Your task to perform on an android device: check the backup settings in the google photos Image 0: 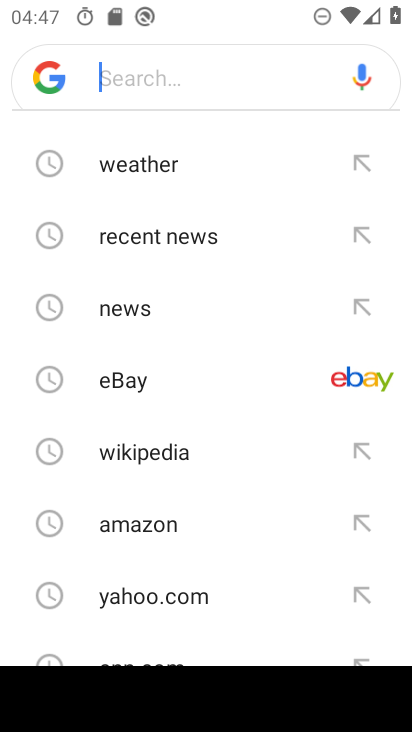
Step 0: press home button
Your task to perform on an android device: check the backup settings in the google photos Image 1: 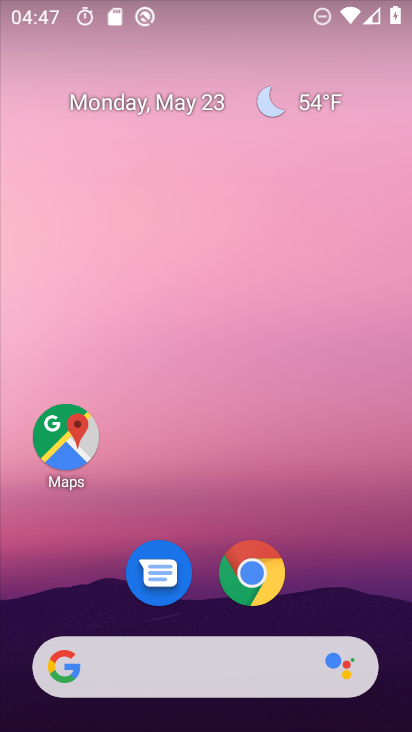
Step 1: drag from (316, 591) to (299, 46)
Your task to perform on an android device: check the backup settings in the google photos Image 2: 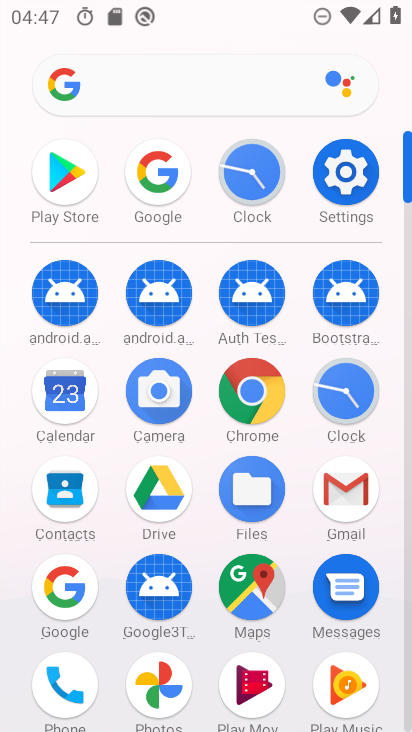
Step 2: click (159, 679)
Your task to perform on an android device: check the backup settings in the google photos Image 3: 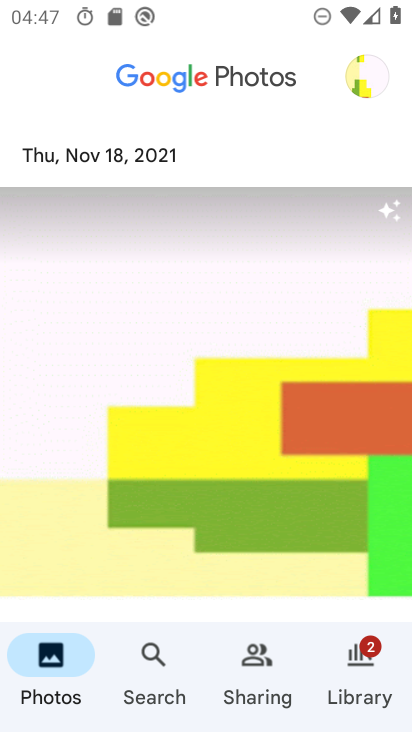
Step 3: click (366, 86)
Your task to perform on an android device: check the backup settings in the google photos Image 4: 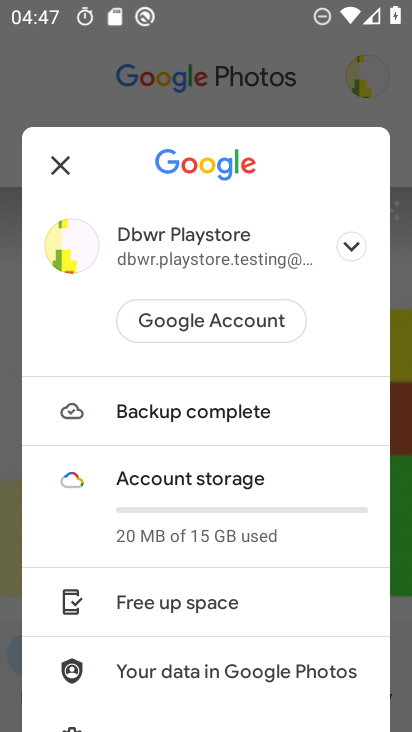
Step 4: drag from (242, 672) to (251, 321)
Your task to perform on an android device: check the backup settings in the google photos Image 5: 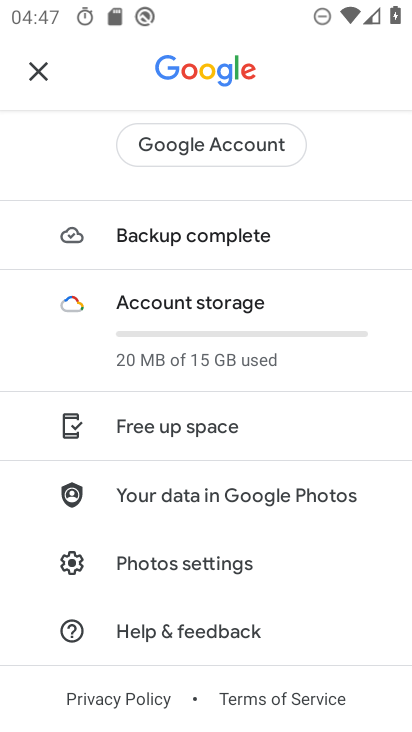
Step 5: click (206, 560)
Your task to perform on an android device: check the backup settings in the google photos Image 6: 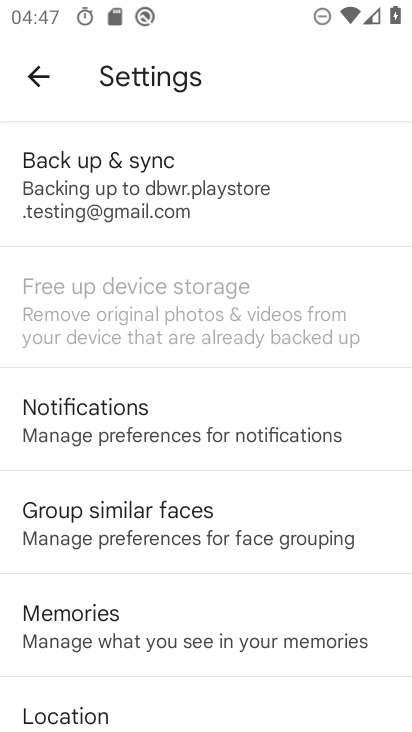
Step 6: click (185, 197)
Your task to perform on an android device: check the backup settings in the google photos Image 7: 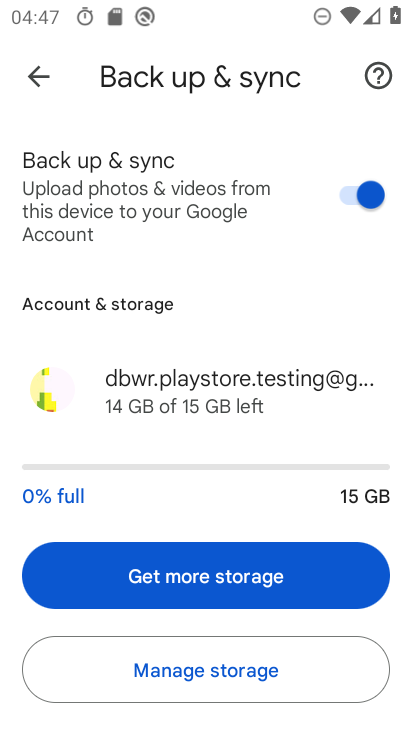
Step 7: task complete